Your task to perform on an android device: Open wifi settings Image 0: 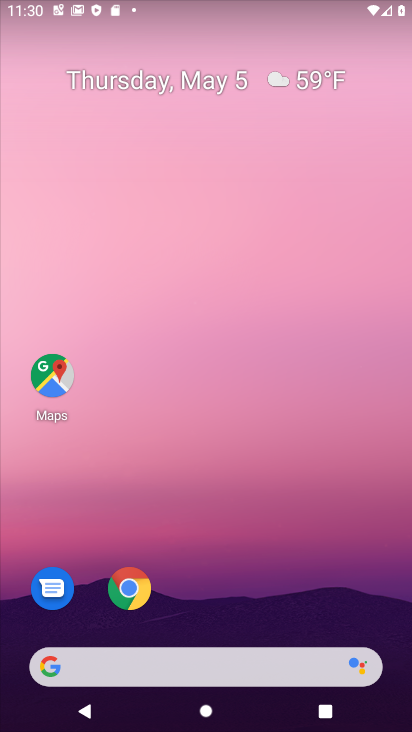
Step 0: drag from (193, 662) to (308, 35)
Your task to perform on an android device: Open wifi settings Image 1: 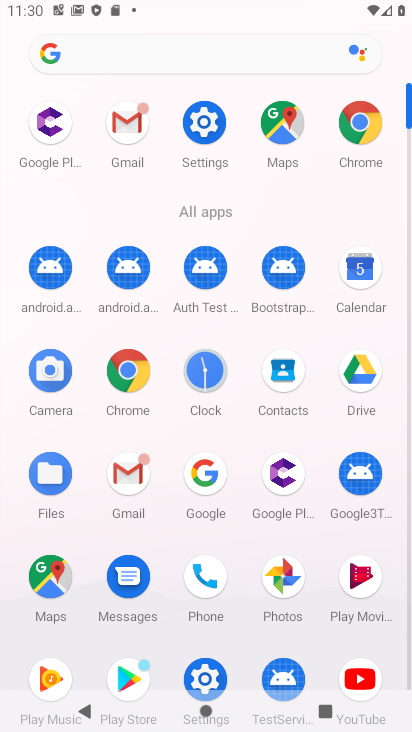
Step 1: click (194, 134)
Your task to perform on an android device: Open wifi settings Image 2: 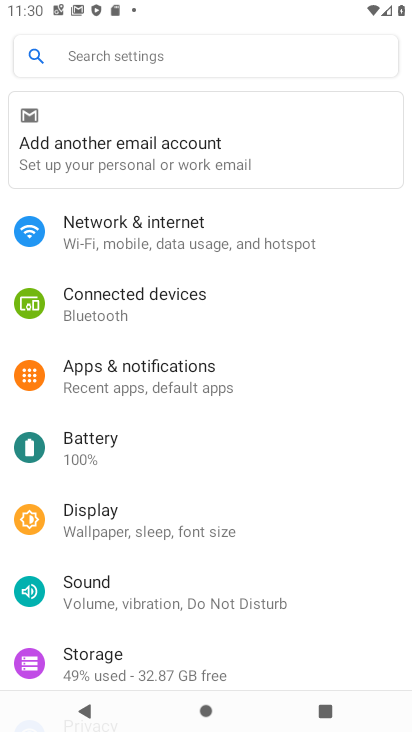
Step 2: click (114, 221)
Your task to perform on an android device: Open wifi settings Image 3: 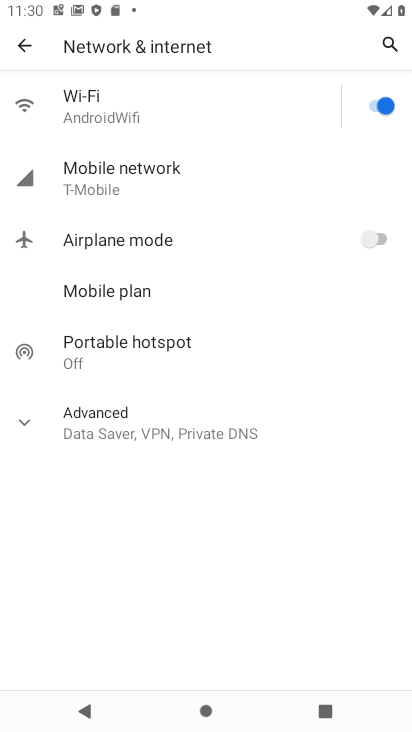
Step 3: click (125, 115)
Your task to perform on an android device: Open wifi settings Image 4: 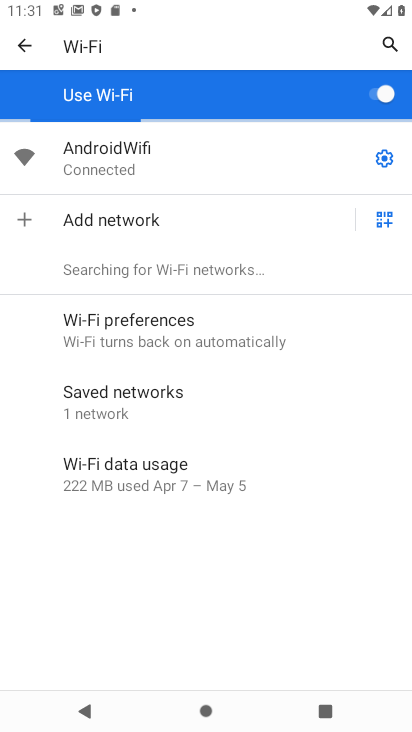
Step 4: task complete